Your task to perform on an android device: Open Chrome and go to settings Image 0: 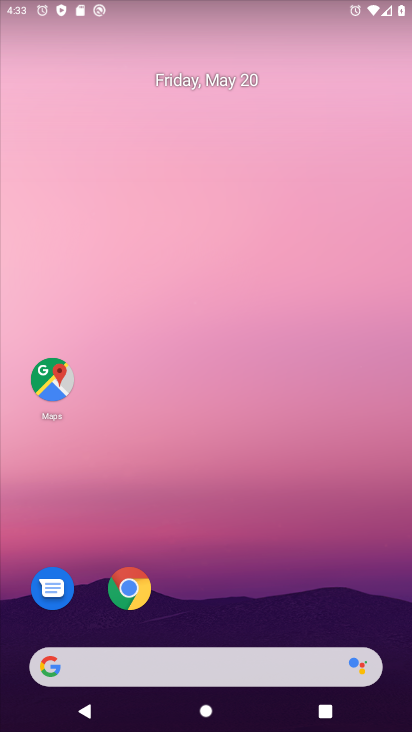
Step 0: drag from (211, 586) to (206, 77)
Your task to perform on an android device: Open Chrome and go to settings Image 1: 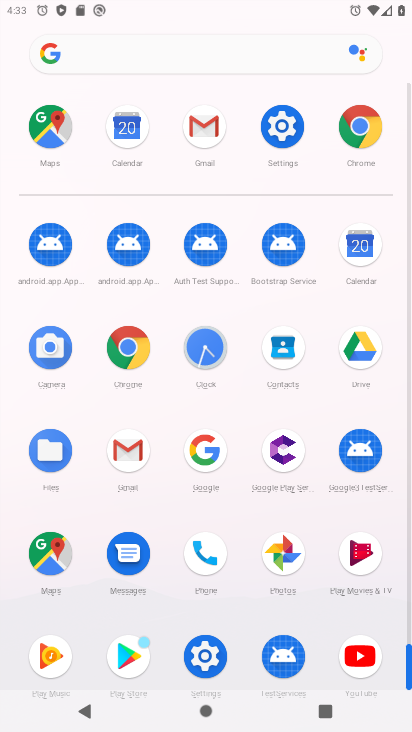
Step 1: click (129, 341)
Your task to perform on an android device: Open Chrome and go to settings Image 2: 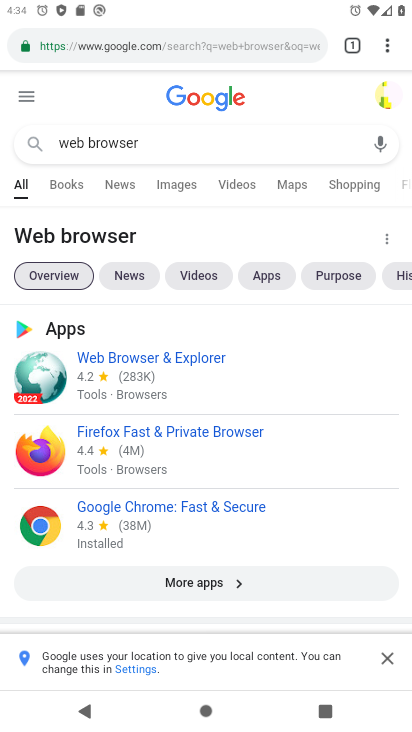
Step 2: task complete